Your task to perform on an android device: stop showing notifications on the lock screen Image 0: 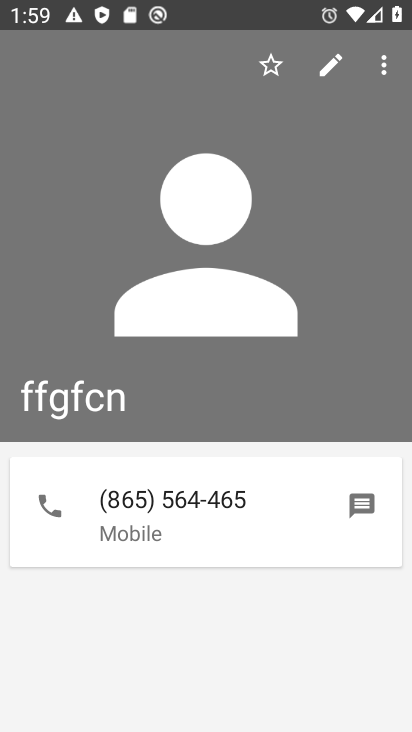
Step 0: press home button
Your task to perform on an android device: stop showing notifications on the lock screen Image 1: 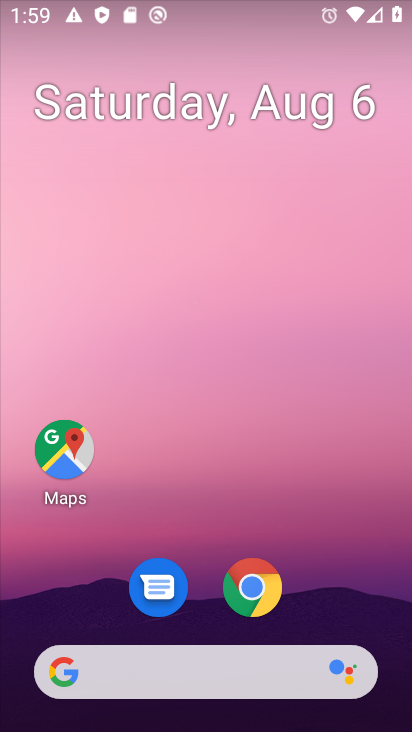
Step 1: drag from (217, 549) to (214, 123)
Your task to perform on an android device: stop showing notifications on the lock screen Image 2: 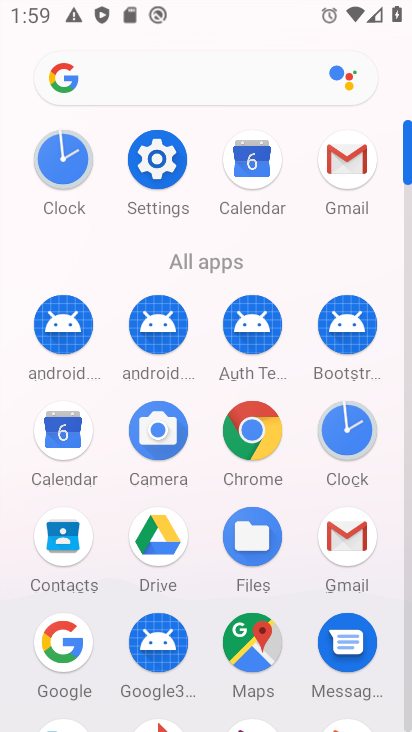
Step 2: click (178, 162)
Your task to perform on an android device: stop showing notifications on the lock screen Image 3: 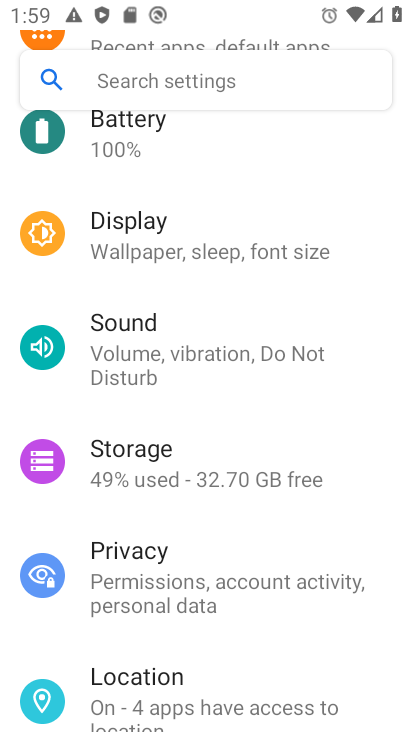
Step 3: drag from (227, 222) to (227, 465)
Your task to perform on an android device: stop showing notifications on the lock screen Image 4: 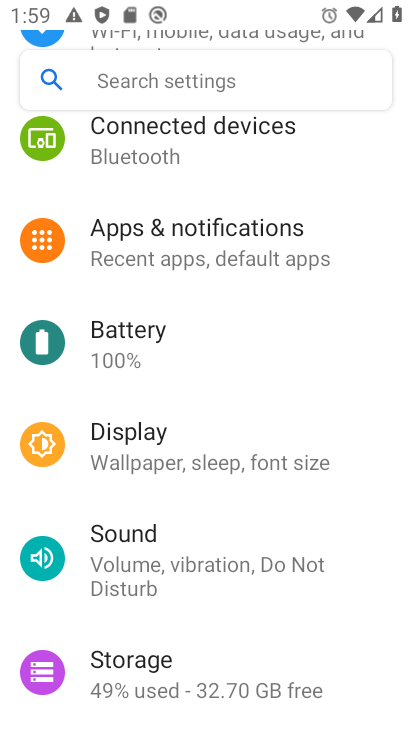
Step 4: click (203, 233)
Your task to perform on an android device: stop showing notifications on the lock screen Image 5: 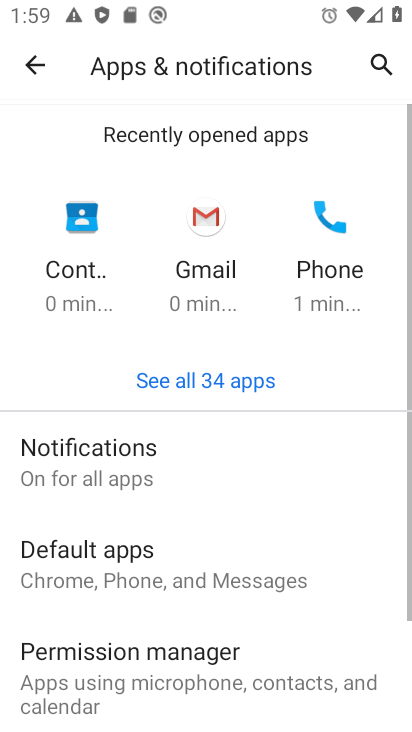
Step 5: click (203, 466)
Your task to perform on an android device: stop showing notifications on the lock screen Image 6: 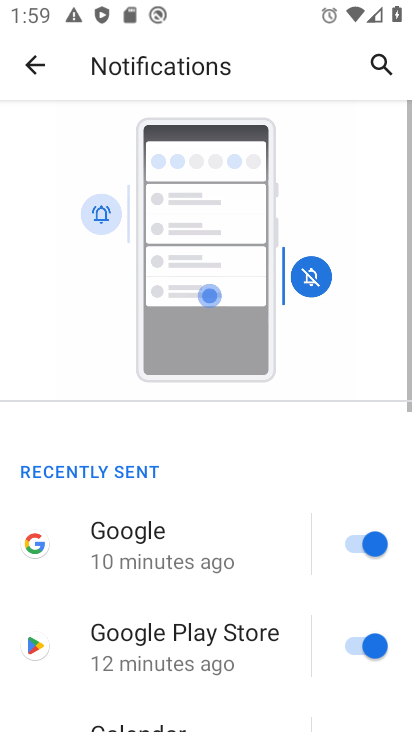
Step 6: drag from (229, 603) to (212, 201)
Your task to perform on an android device: stop showing notifications on the lock screen Image 7: 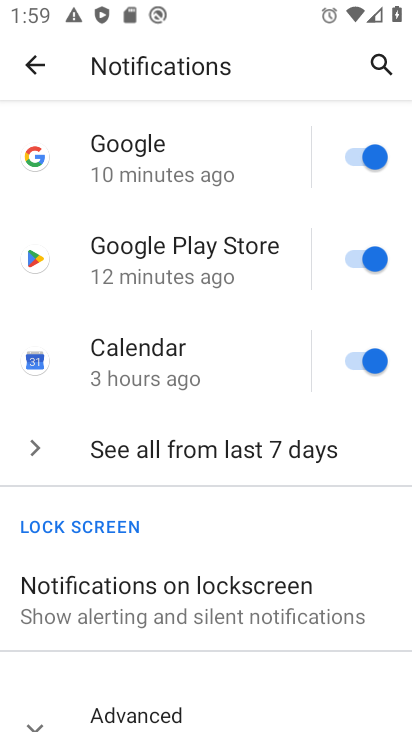
Step 7: click (241, 612)
Your task to perform on an android device: stop showing notifications on the lock screen Image 8: 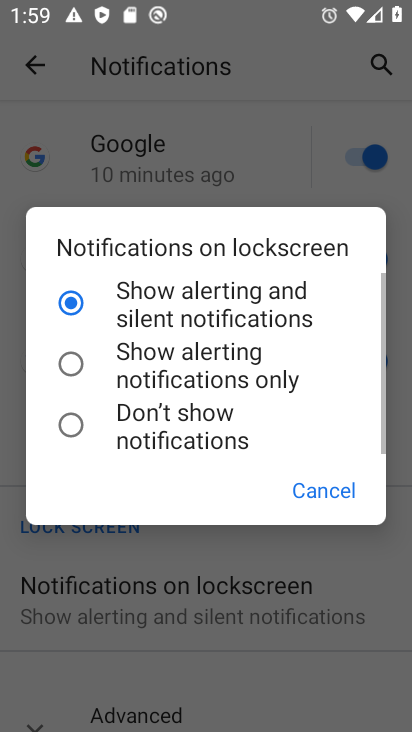
Step 8: click (197, 438)
Your task to perform on an android device: stop showing notifications on the lock screen Image 9: 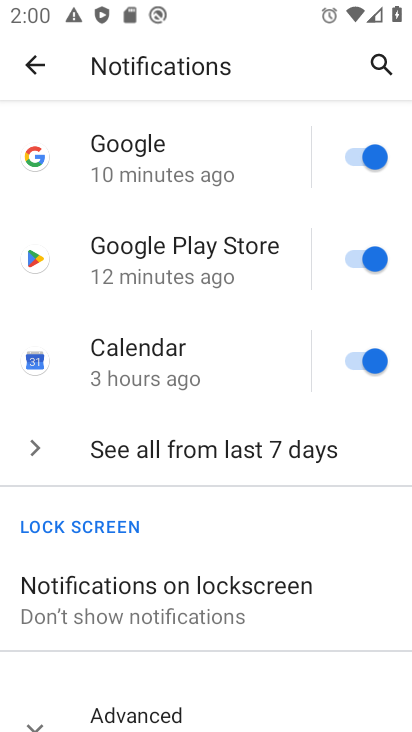
Step 9: task complete